Your task to perform on an android device: turn on translation in the chrome app Image 0: 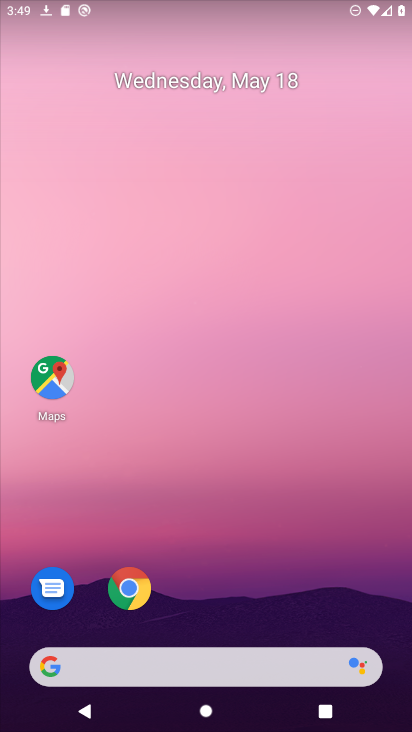
Step 0: click (126, 595)
Your task to perform on an android device: turn on translation in the chrome app Image 1: 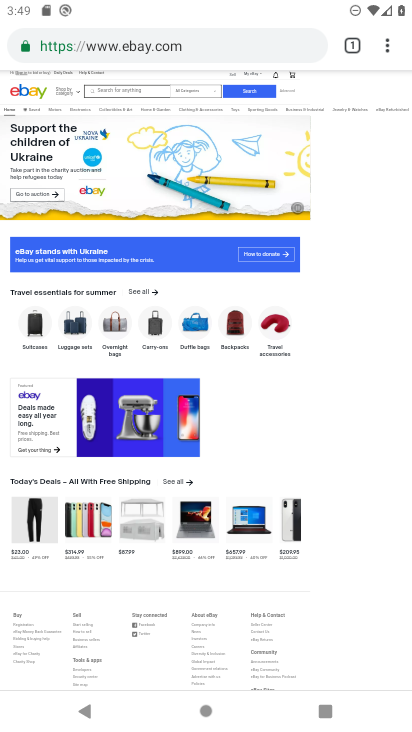
Step 1: click (393, 50)
Your task to perform on an android device: turn on translation in the chrome app Image 2: 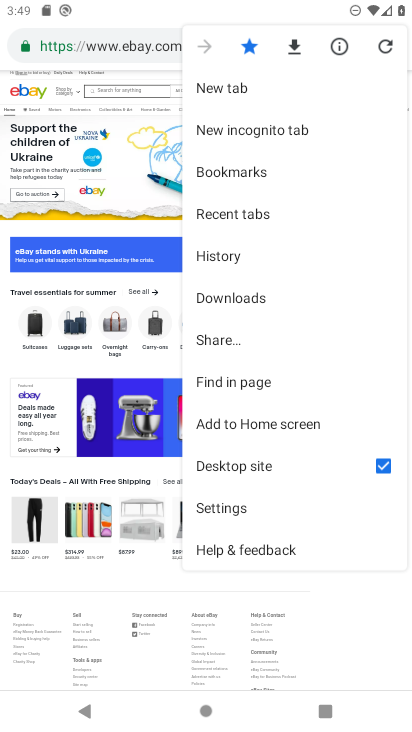
Step 2: click (223, 506)
Your task to perform on an android device: turn on translation in the chrome app Image 3: 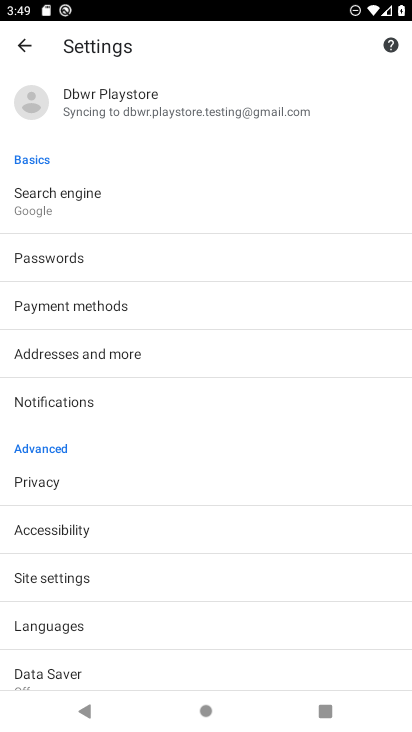
Step 3: click (90, 625)
Your task to perform on an android device: turn on translation in the chrome app Image 4: 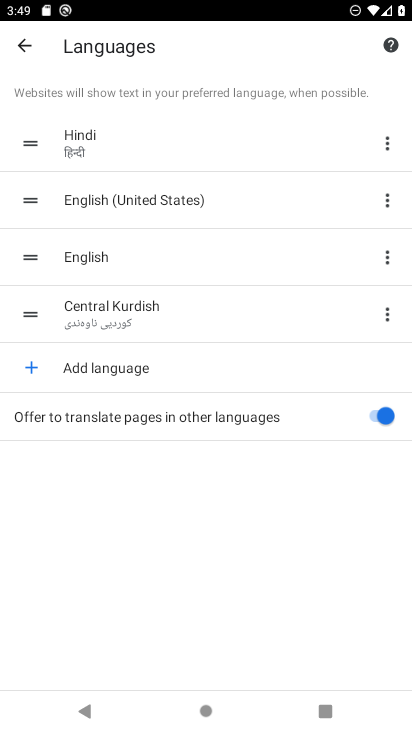
Step 4: task complete